Your task to perform on an android device: turn pop-ups off in chrome Image 0: 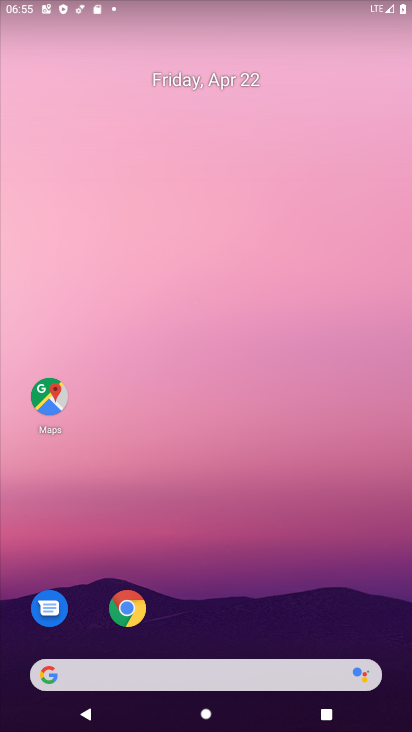
Step 0: drag from (242, 583) to (176, 150)
Your task to perform on an android device: turn pop-ups off in chrome Image 1: 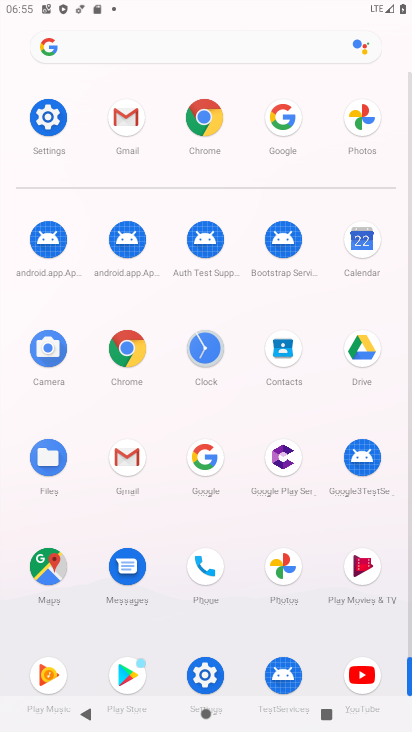
Step 1: click (28, 113)
Your task to perform on an android device: turn pop-ups off in chrome Image 2: 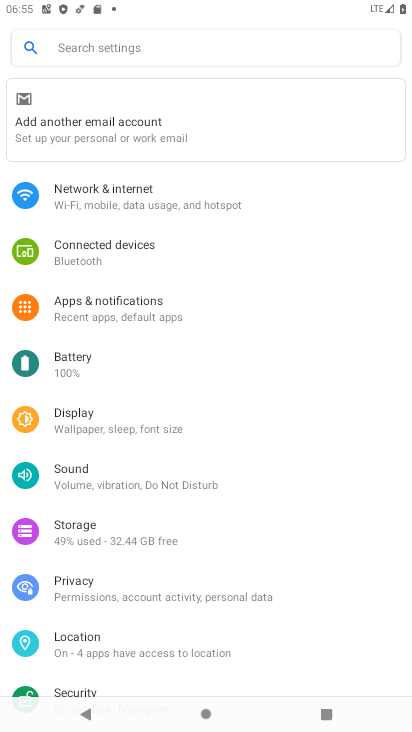
Step 2: task complete